Your task to perform on an android device: What is the recent news? Image 0: 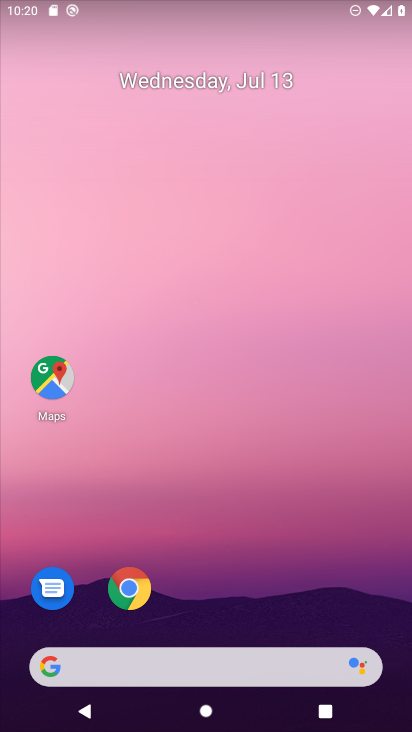
Step 0: drag from (246, 643) to (220, 149)
Your task to perform on an android device: What is the recent news? Image 1: 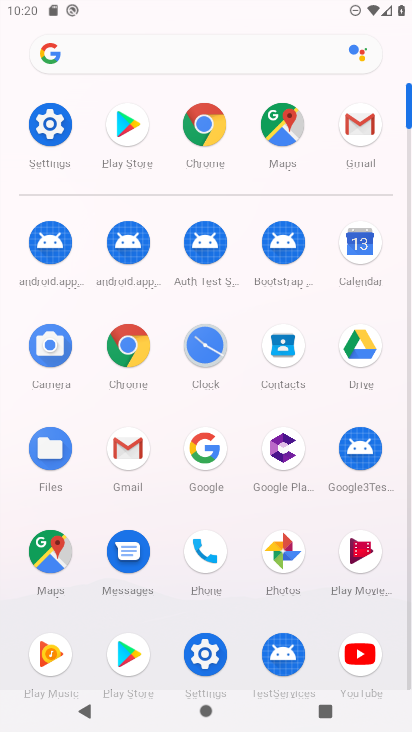
Step 1: click (220, 450)
Your task to perform on an android device: What is the recent news? Image 2: 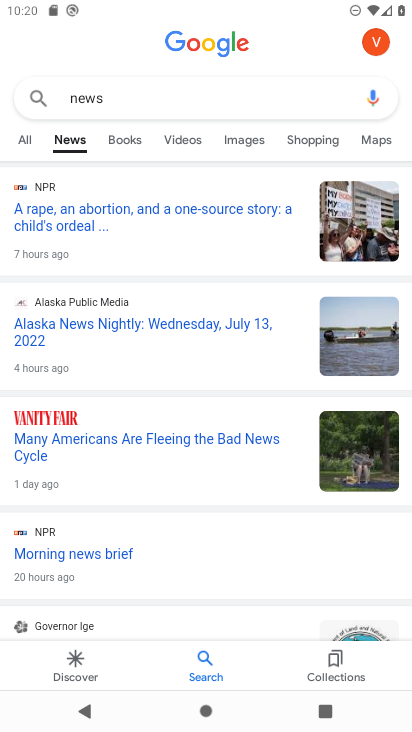
Step 2: task complete